Your task to perform on an android device: What's on my calendar tomorrow? Image 0: 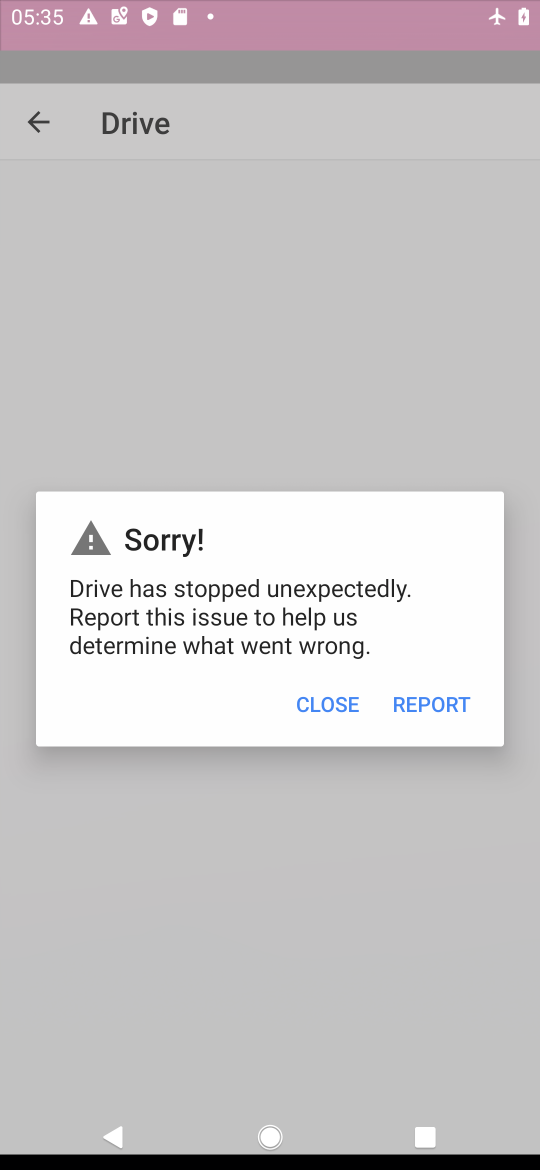
Step 0: press home button
Your task to perform on an android device: What's on my calendar tomorrow? Image 1: 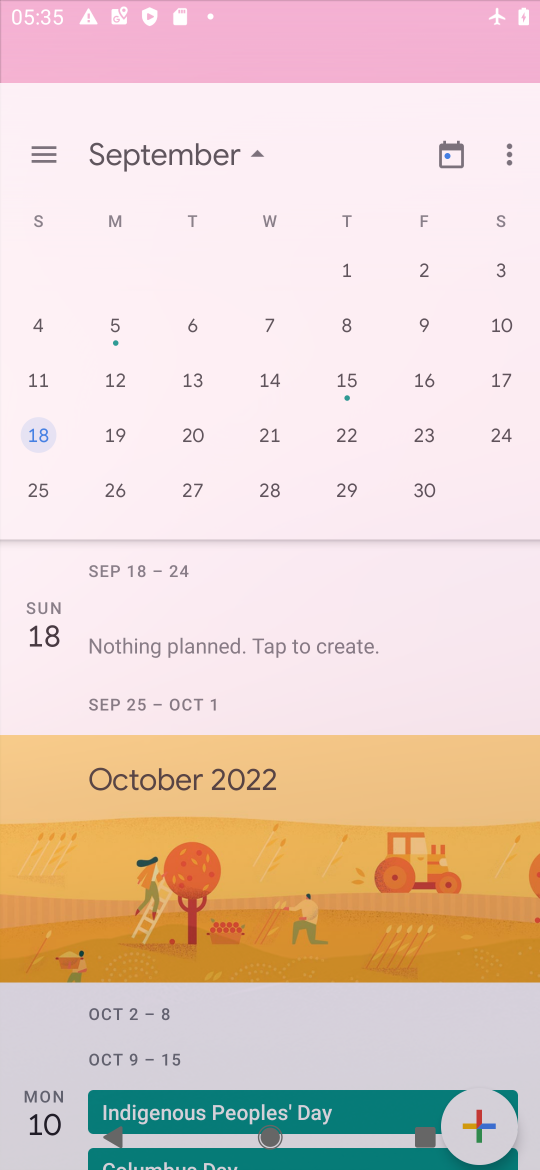
Step 1: press back button
Your task to perform on an android device: What's on my calendar tomorrow? Image 2: 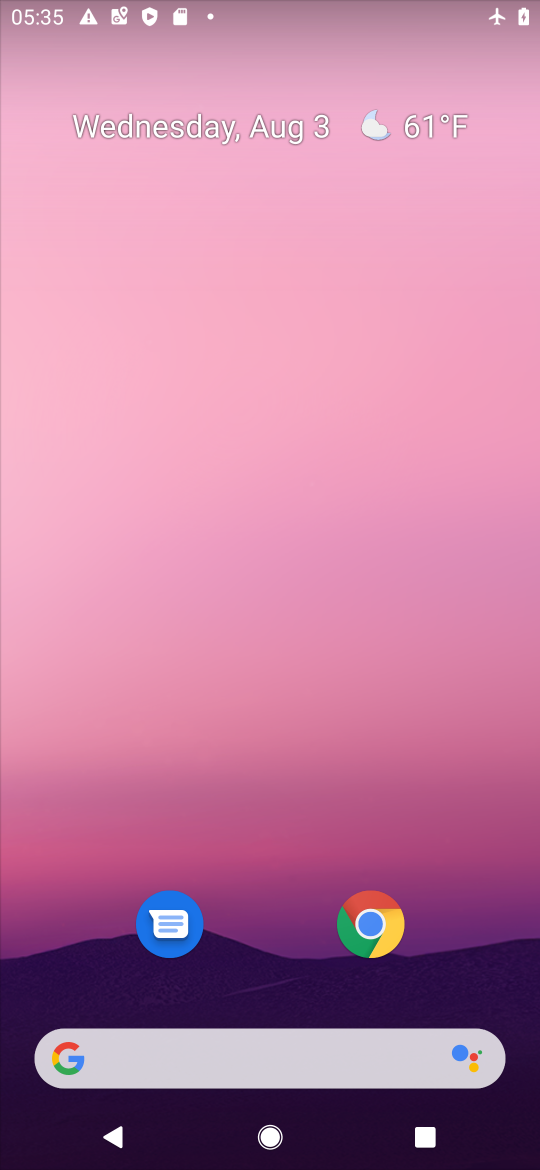
Step 2: drag from (245, 934) to (245, 400)
Your task to perform on an android device: What's on my calendar tomorrow? Image 3: 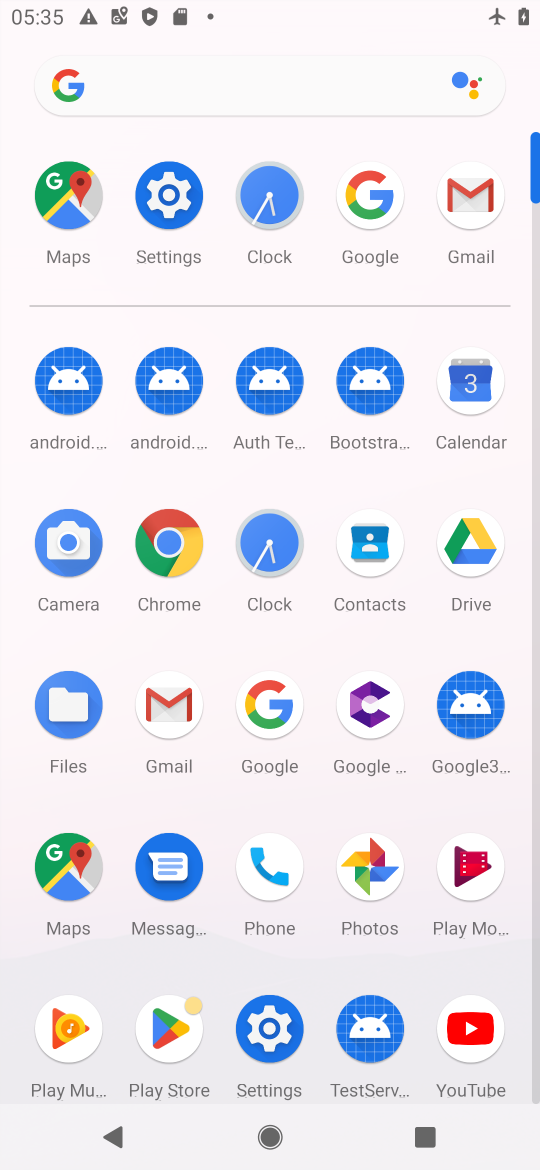
Step 3: click (460, 411)
Your task to perform on an android device: What's on my calendar tomorrow? Image 4: 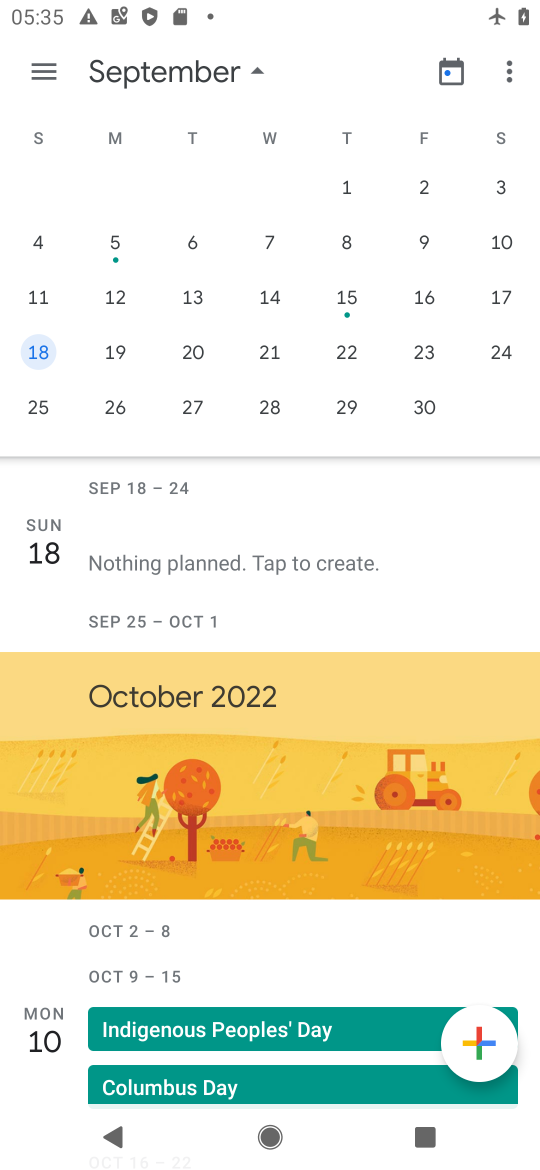
Step 4: drag from (325, 309) to (482, 283)
Your task to perform on an android device: What's on my calendar tomorrow? Image 5: 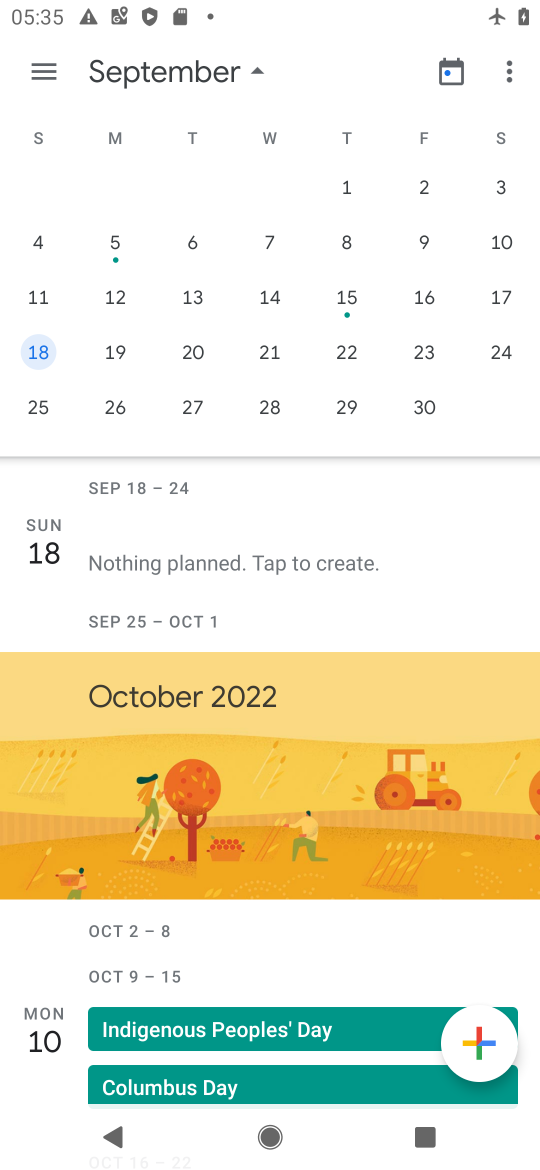
Step 5: drag from (83, 251) to (446, 238)
Your task to perform on an android device: What's on my calendar tomorrow? Image 6: 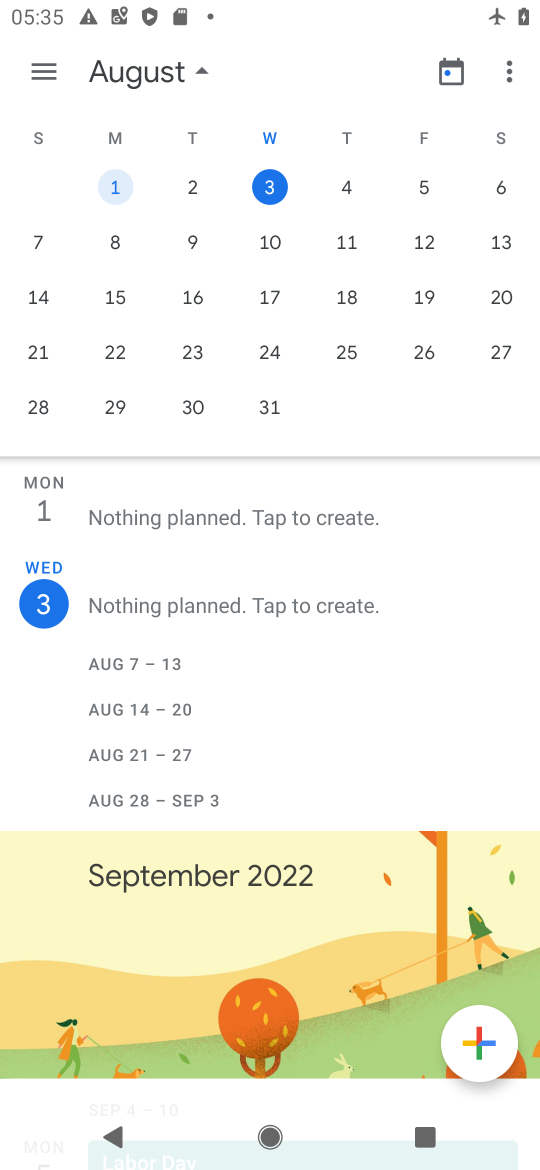
Step 6: click (322, 185)
Your task to perform on an android device: What's on my calendar tomorrow? Image 7: 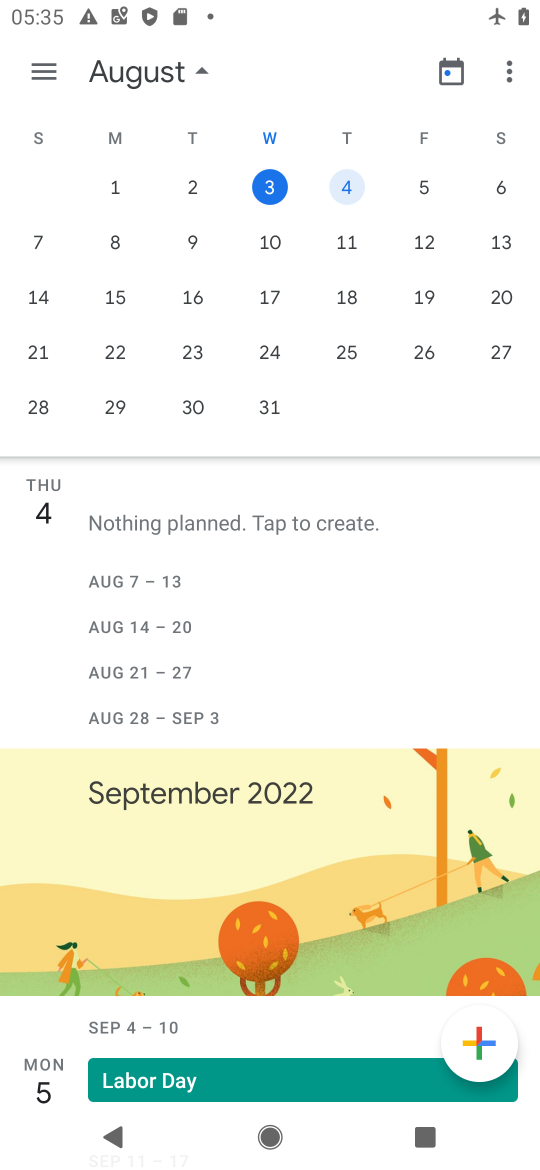
Step 7: task complete